Your task to perform on an android device: find which apps use the phone's location Image 0: 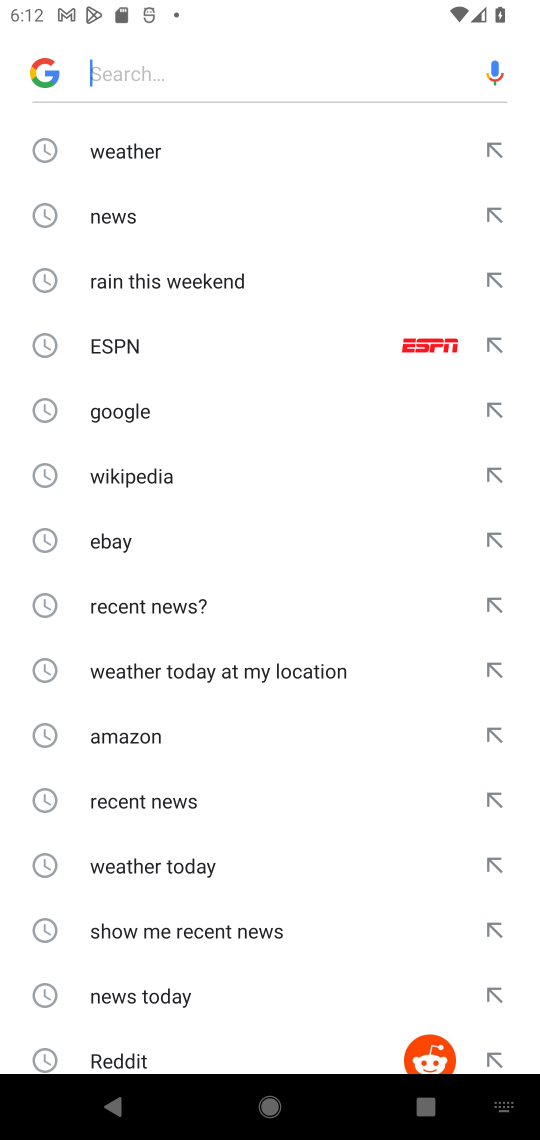
Step 0: press home button
Your task to perform on an android device: find which apps use the phone's location Image 1: 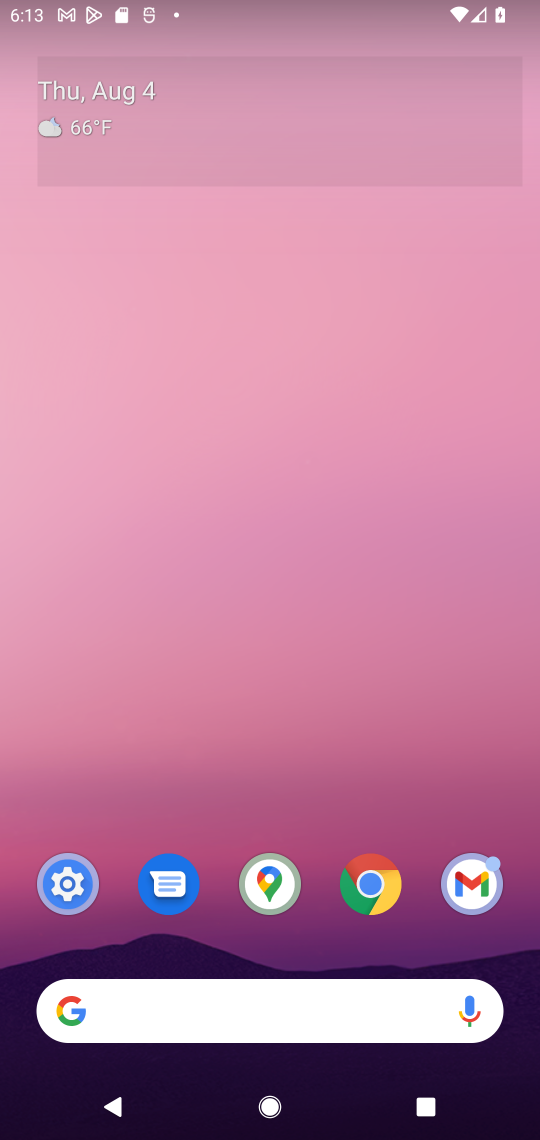
Step 1: click (59, 931)
Your task to perform on an android device: find which apps use the phone's location Image 2: 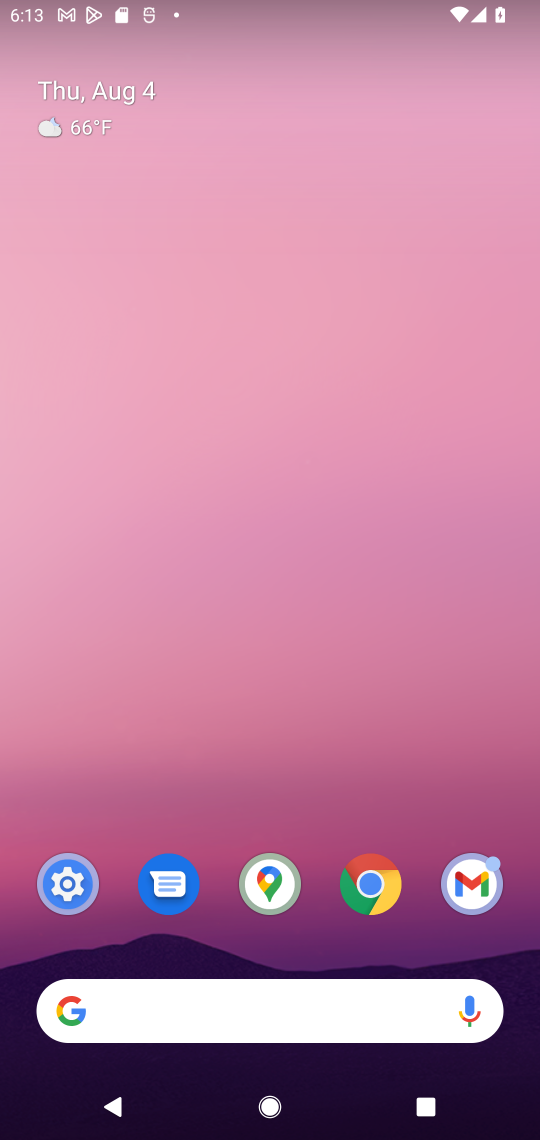
Step 2: click (59, 894)
Your task to perform on an android device: find which apps use the phone's location Image 3: 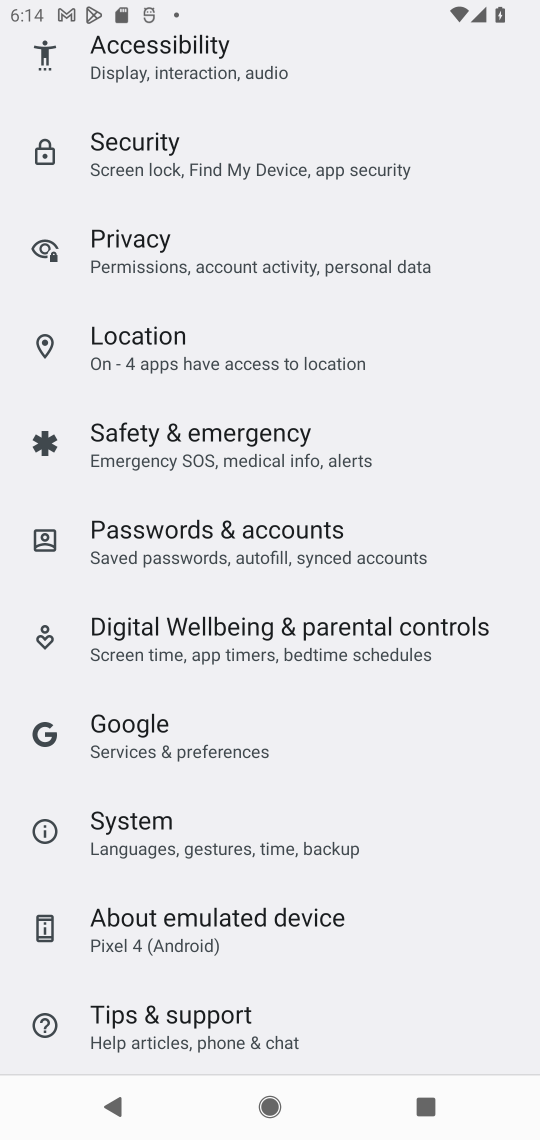
Step 3: click (183, 377)
Your task to perform on an android device: find which apps use the phone's location Image 4: 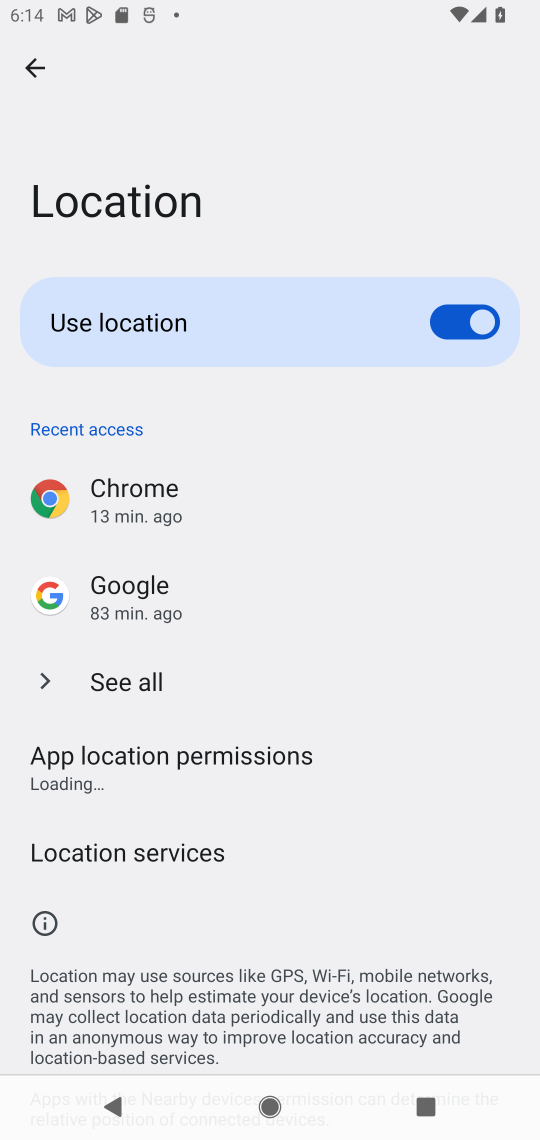
Step 4: task complete